Your task to perform on an android device: Show me popular videos on Youtube Image 0: 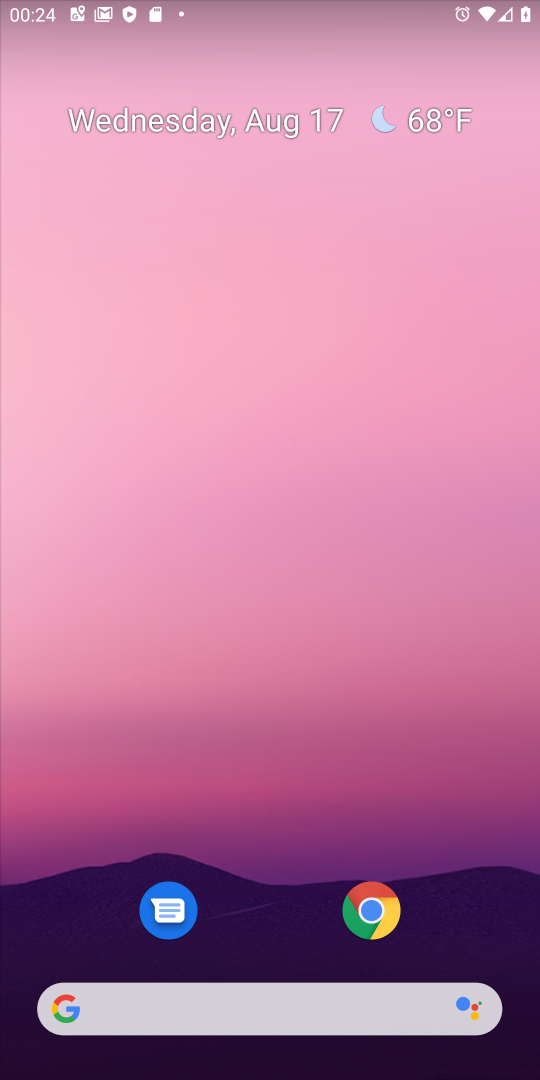
Step 0: drag from (290, 941) to (245, 67)
Your task to perform on an android device: Show me popular videos on Youtube Image 1: 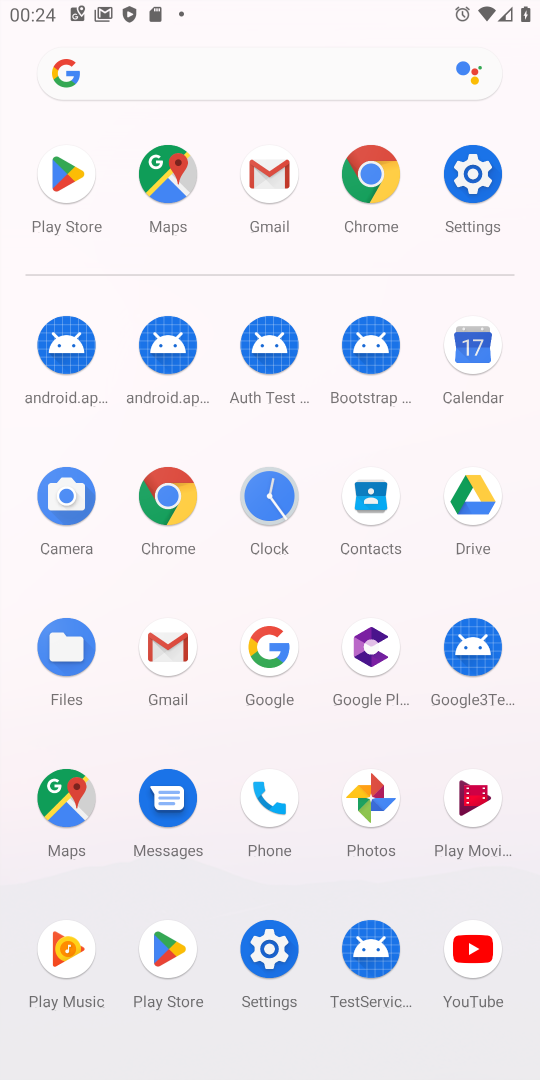
Step 1: click (480, 932)
Your task to perform on an android device: Show me popular videos on Youtube Image 2: 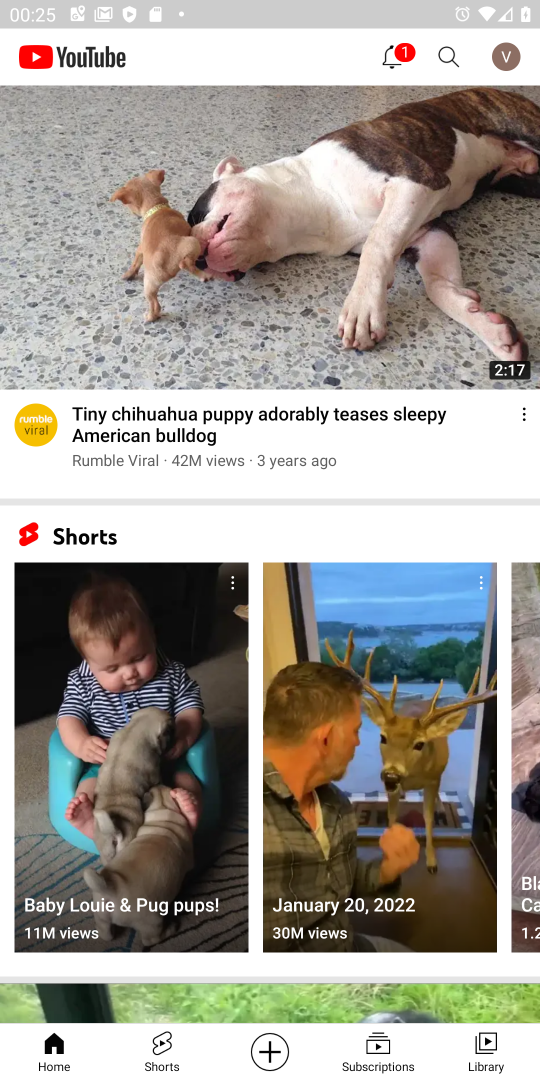
Step 2: drag from (145, 473) to (174, 810)
Your task to perform on an android device: Show me popular videos on Youtube Image 3: 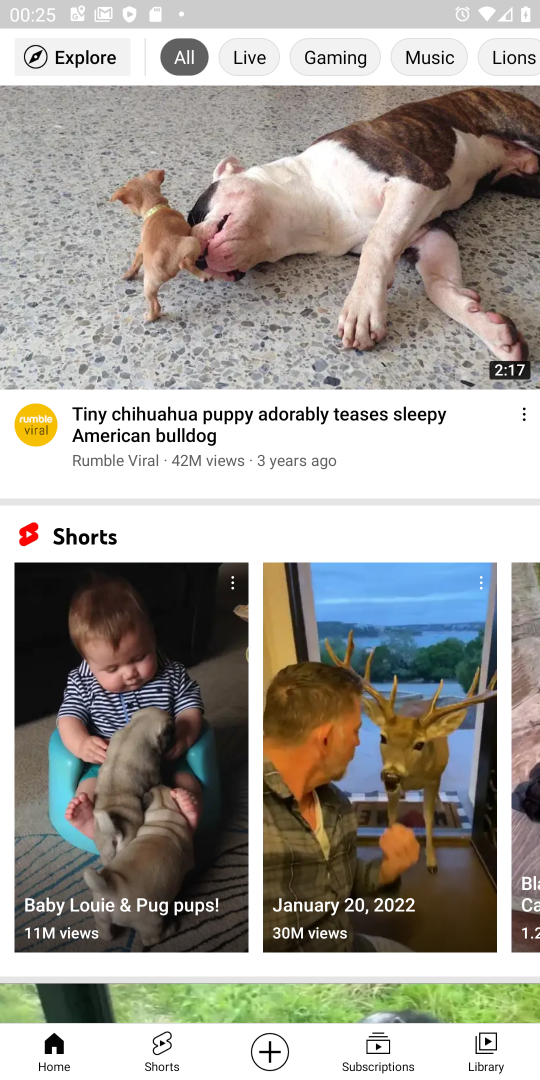
Step 3: click (67, 64)
Your task to perform on an android device: Show me popular videos on Youtube Image 4: 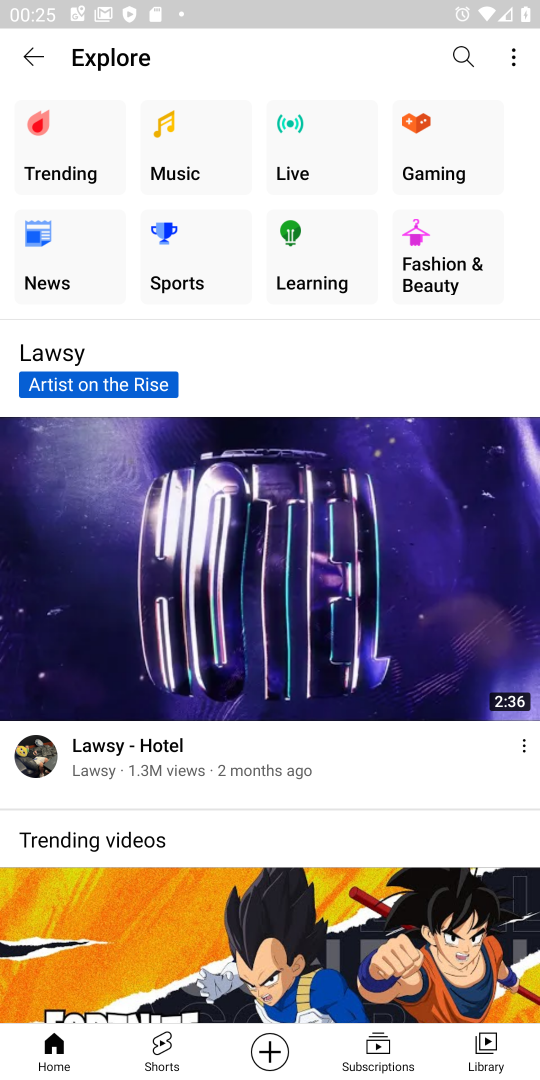
Step 4: task complete